Your task to perform on an android device: Open the calendar app, open the side menu, and click the "Day" option Image 0: 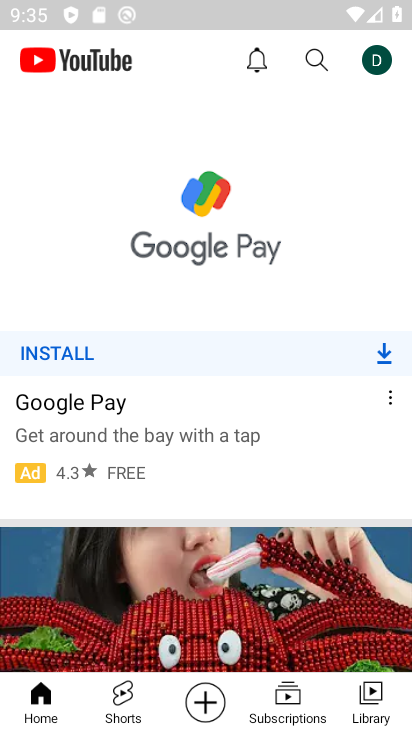
Step 0: press home button
Your task to perform on an android device: Open the calendar app, open the side menu, and click the "Day" option Image 1: 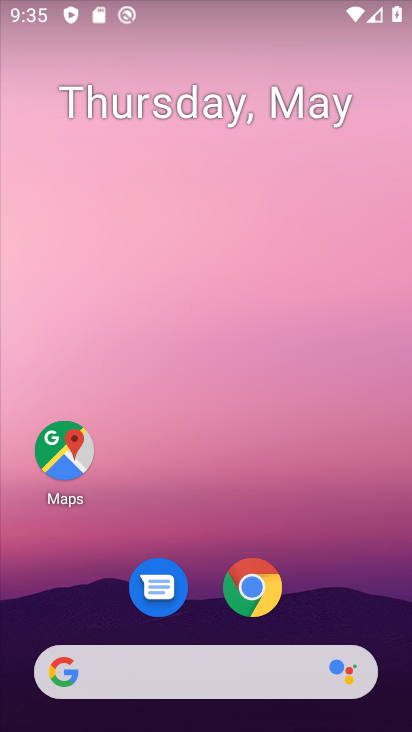
Step 1: drag from (335, 613) to (149, 46)
Your task to perform on an android device: Open the calendar app, open the side menu, and click the "Day" option Image 2: 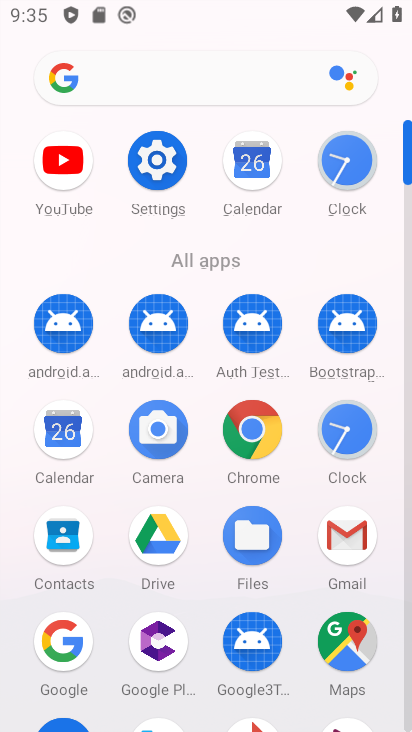
Step 2: click (65, 417)
Your task to perform on an android device: Open the calendar app, open the side menu, and click the "Day" option Image 3: 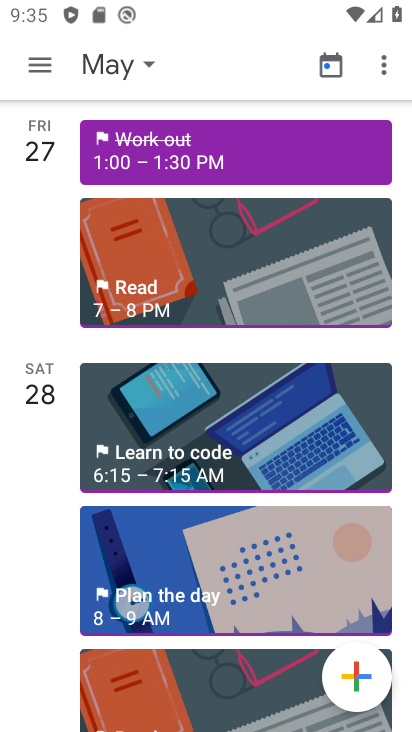
Step 3: click (42, 61)
Your task to perform on an android device: Open the calendar app, open the side menu, and click the "Day" option Image 4: 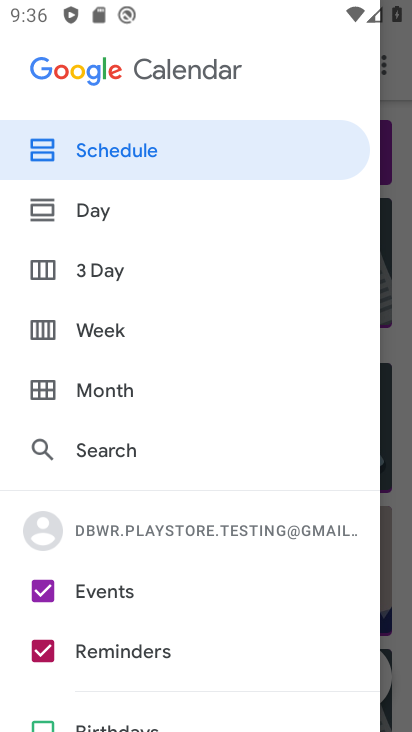
Step 4: click (112, 217)
Your task to perform on an android device: Open the calendar app, open the side menu, and click the "Day" option Image 5: 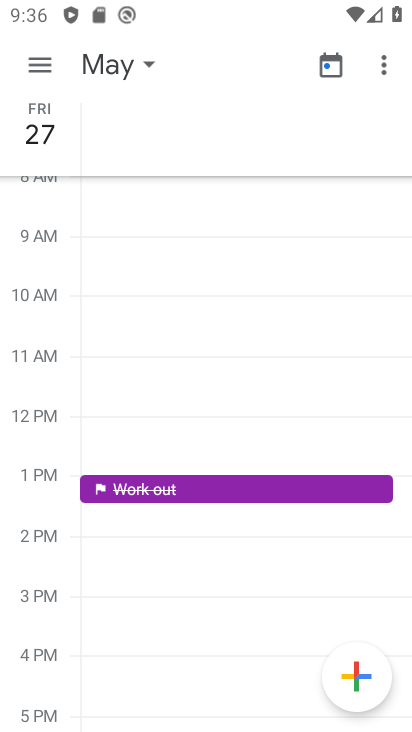
Step 5: task complete